Your task to perform on an android device: toggle sleep mode Image 0: 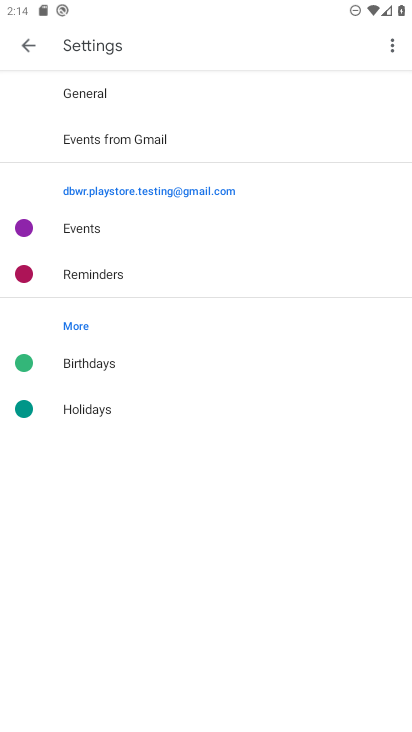
Step 0: press home button
Your task to perform on an android device: toggle sleep mode Image 1: 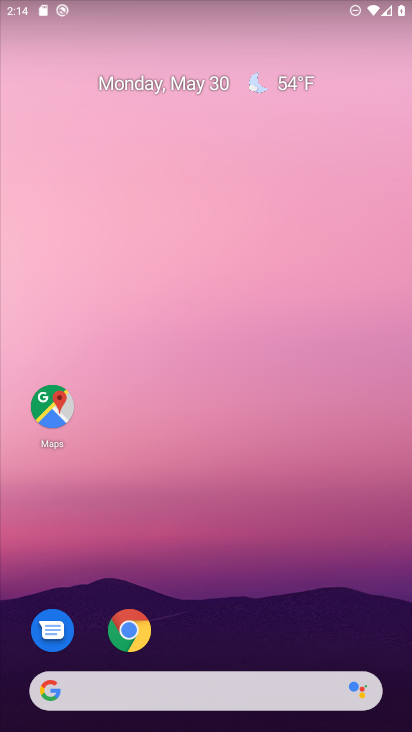
Step 1: drag from (256, 130) to (251, 86)
Your task to perform on an android device: toggle sleep mode Image 2: 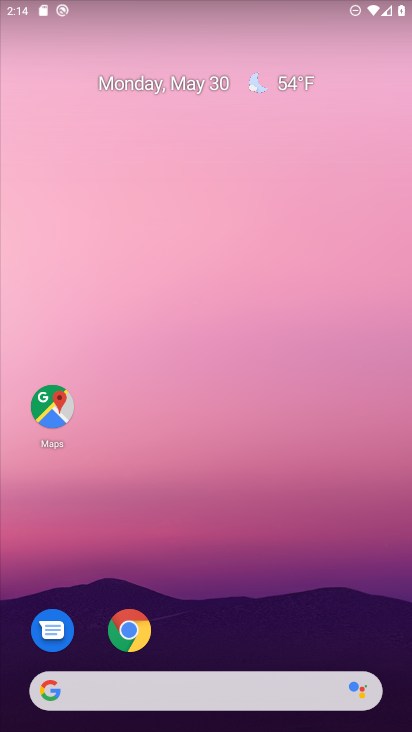
Step 2: drag from (207, 682) to (203, 150)
Your task to perform on an android device: toggle sleep mode Image 3: 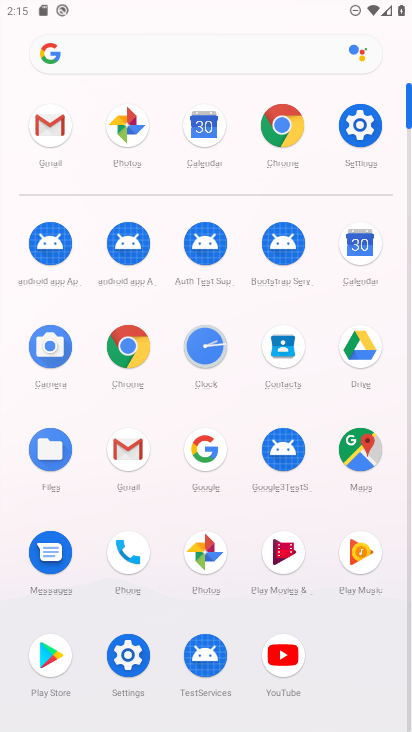
Step 3: click (131, 648)
Your task to perform on an android device: toggle sleep mode Image 4: 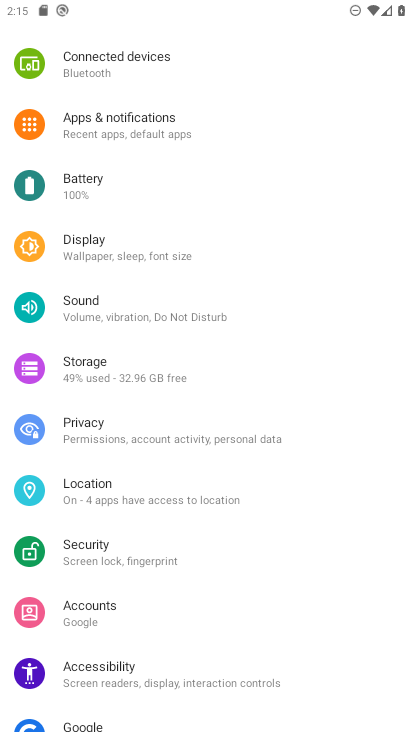
Step 4: click (155, 257)
Your task to perform on an android device: toggle sleep mode Image 5: 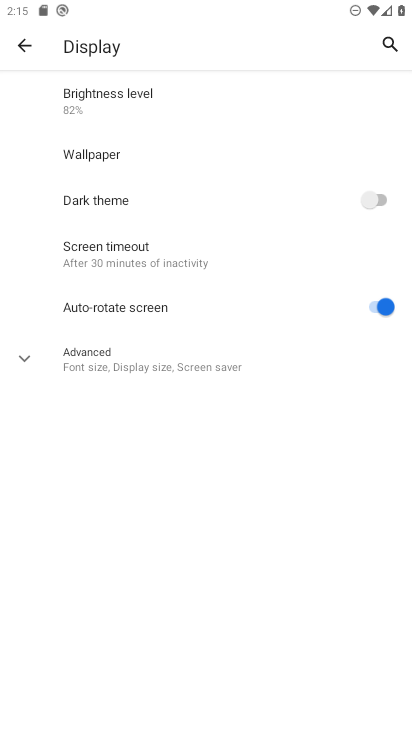
Step 5: click (118, 344)
Your task to perform on an android device: toggle sleep mode Image 6: 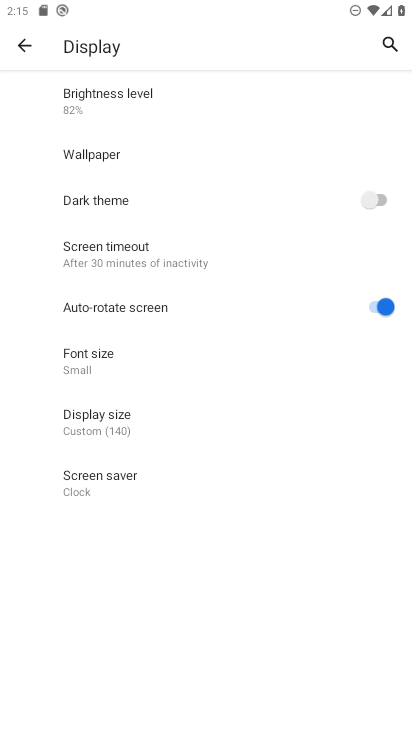
Step 6: task complete